Your task to perform on an android device: Add "lg ultragear" to the cart on walmart.com, then select checkout. Image 0: 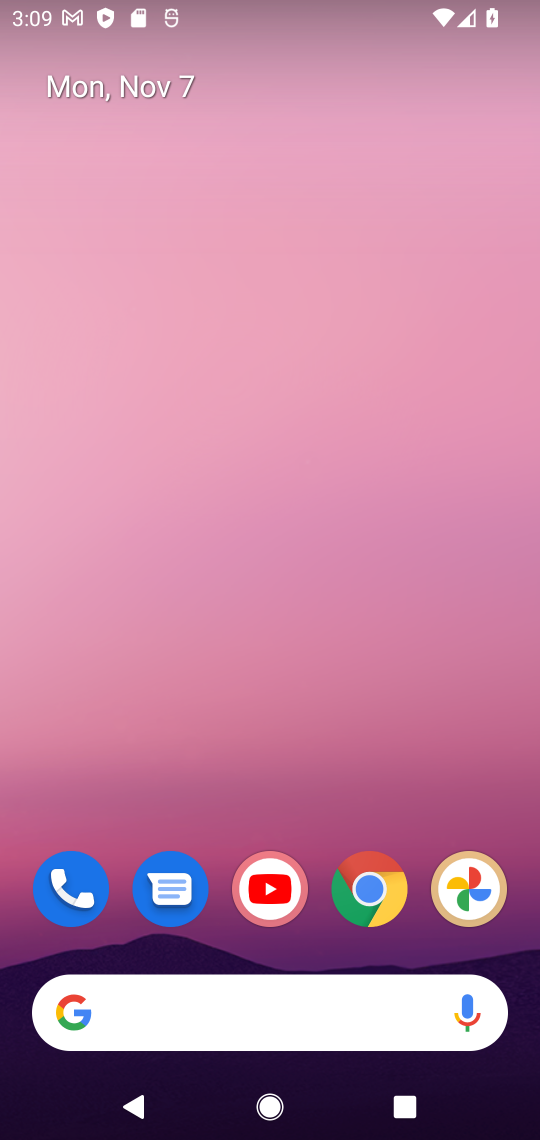
Step 0: click (379, 904)
Your task to perform on an android device: Add "lg ultragear" to the cart on walmart.com, then select checkout. Image 1: 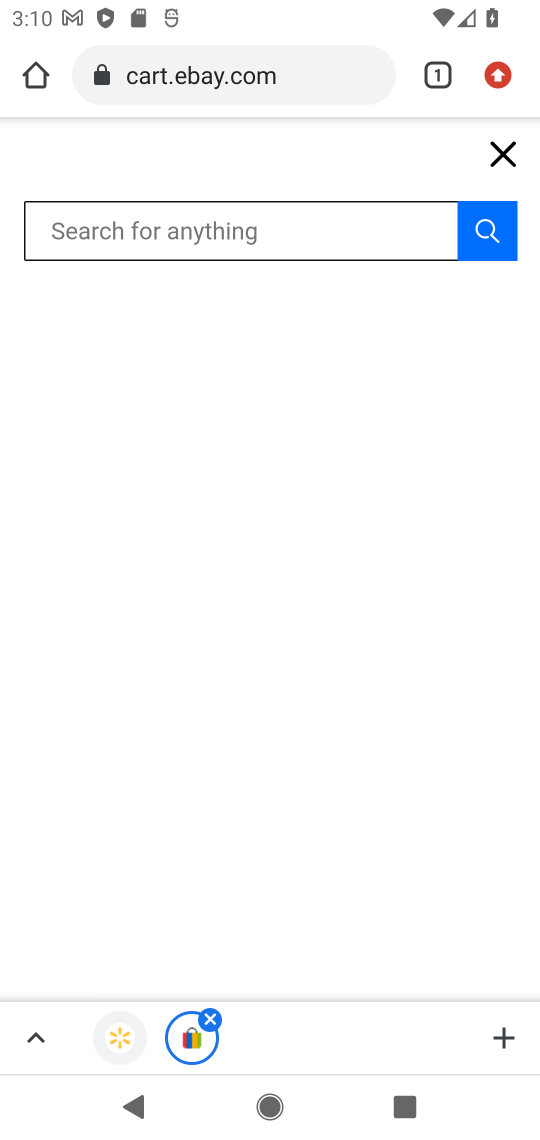
Step 1: click (219, 237)
Your task to perform on an android device: Add "lg ultragear" to the cart on walmart.com, then select checkout. Image 2: 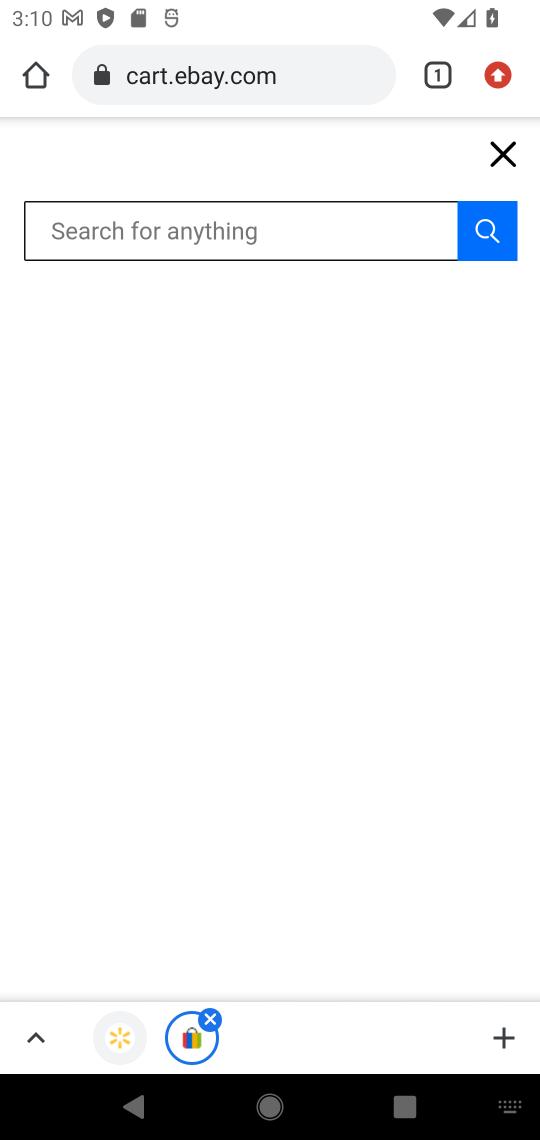
Step 2: click (282, 78)
Your task to perform on an android device: Add "lg ultragear" to the cart on walmart.com, then select checkout. Image 3: 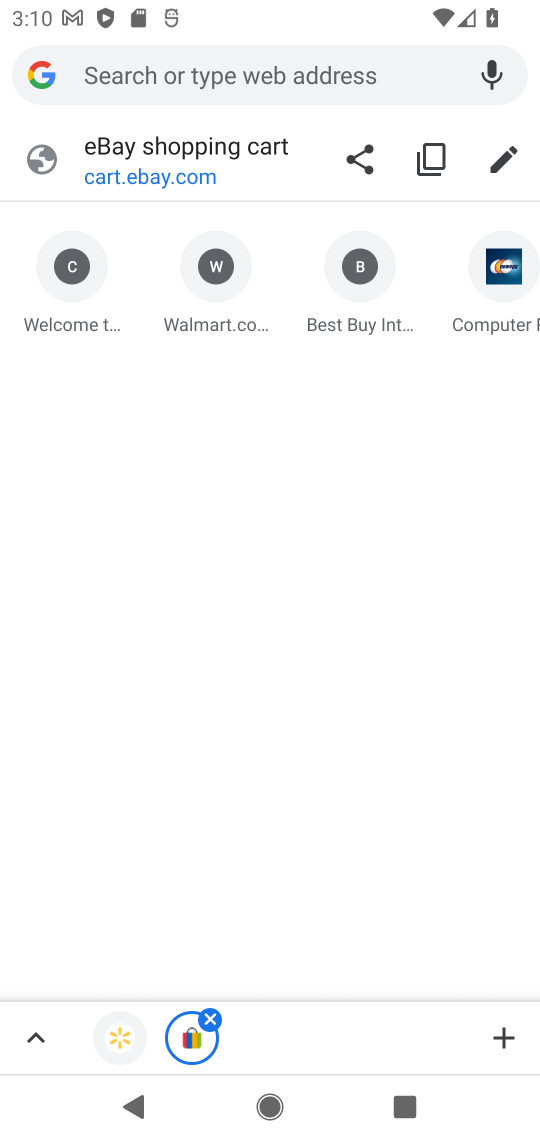
Step 3: type "walmart"
Your task to perform on an android device: Add "lg ultragear" to the cart on walmart.com, then select checkout. Image 4: 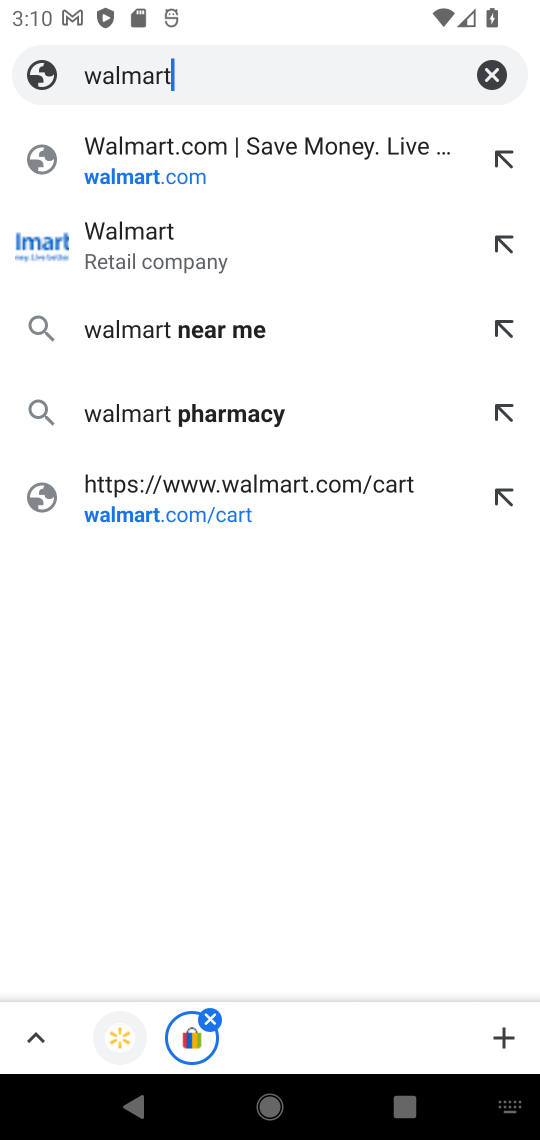
Step 4: click (233, 169)
Your task to perform on an android device: Add "lg ultragear" to the cart on walmart.com, then select checkout. Image 5: 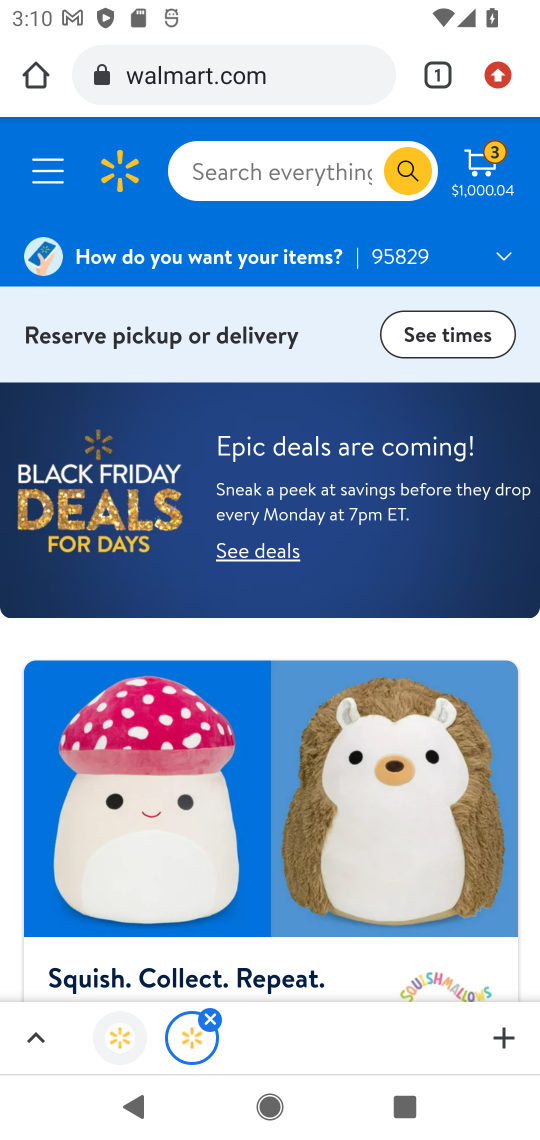
Step 5: click (273, 165)
Your task to perform on an android device: Add "lg ultragear" to the cart on walmart.com, then select checkout. Image 6: 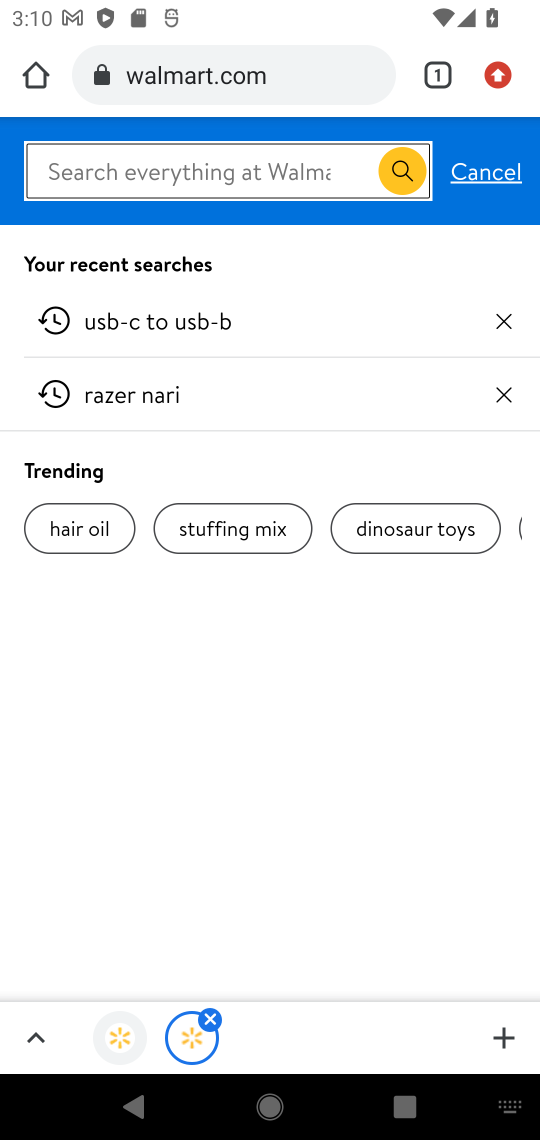
Step 6: type "lg ultraclear"
Your task to perform on an android device: Add "lg ultragear" to the cart on walmart.com, then select checkout. Image 7: 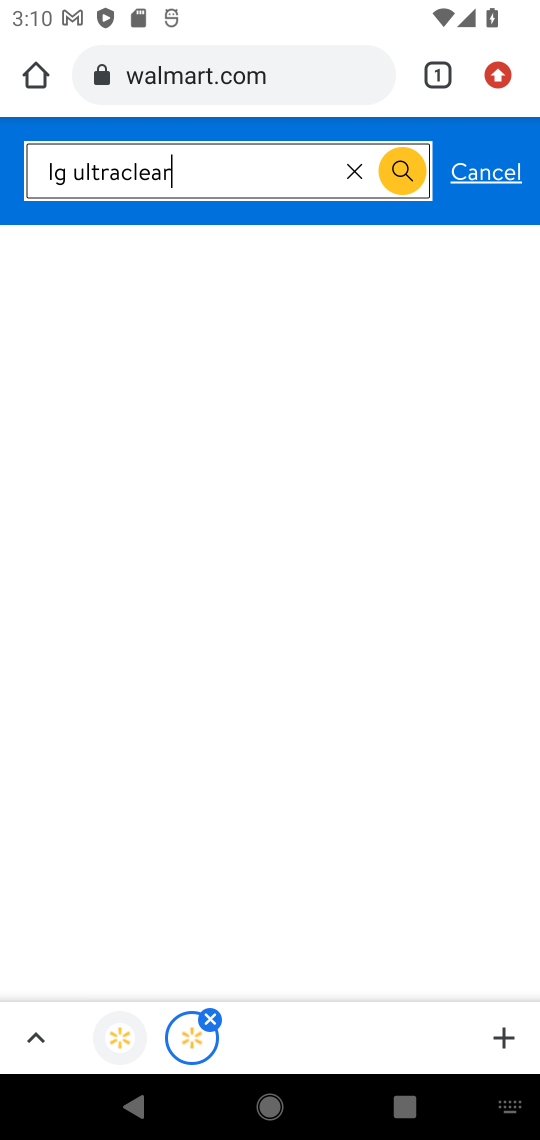
Step 7: press enter
Your task to perform on an android device: Add "lg ultragear" to the cart on walmart.com, then select checkout. Image 8: 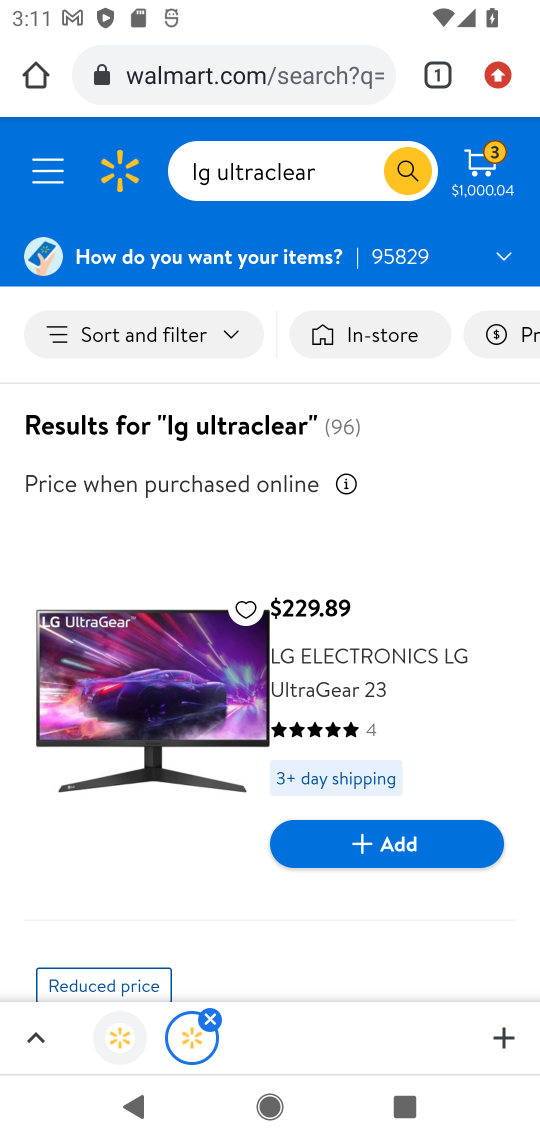
Step 8: click (197, 688)
Your task to perform on an android device: Add "lg ultragear" to the cart on walmart.com, then select checkout. Image 9: 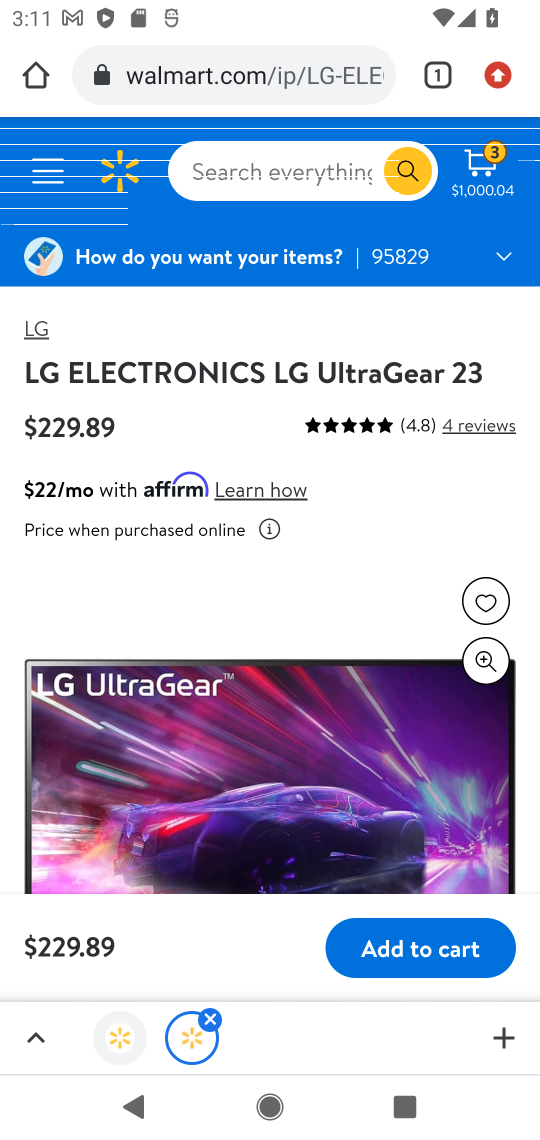
Step 9: click (317, 166)
Your task to perform on an android device: Add "lg ultragear" to the cart on walmart.com, then select checkout. Image 10: 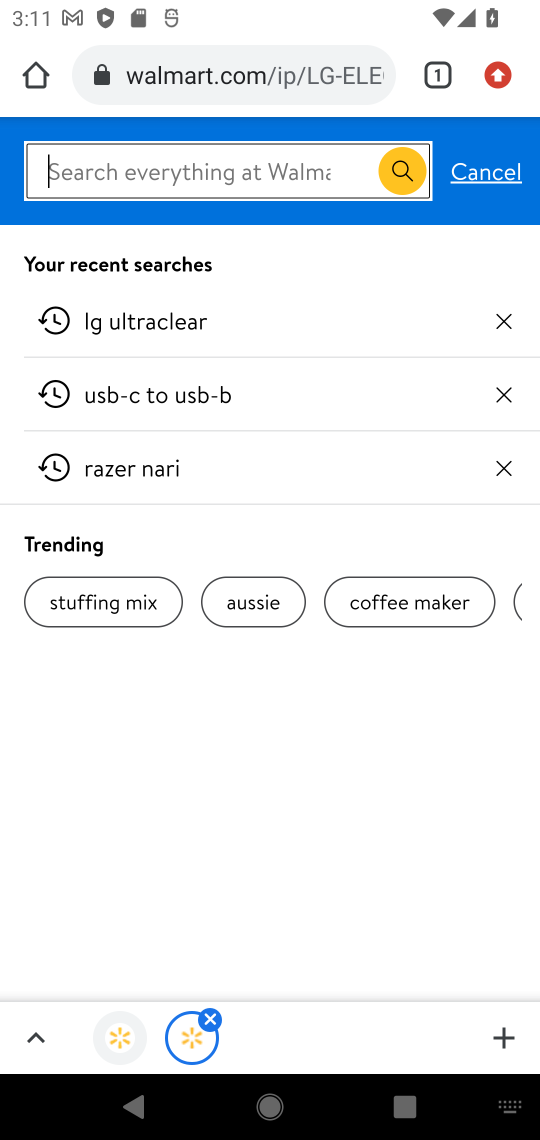
Step 10: type "lg ultragear"
Your task to perform on an android device: Add "lg ultragear" to the cart on walmart.com, then select checkout. Image 11: 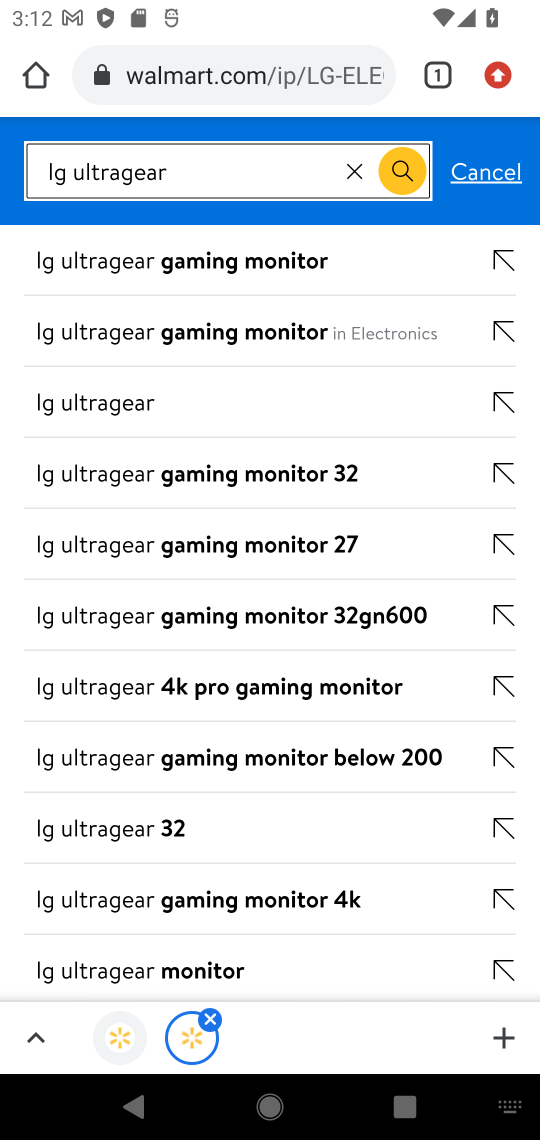
Step 11: press enter
Your task to perform on an android device: Add "lg ultragear" to the cart on walmart.com, then select checkout. Image 12: 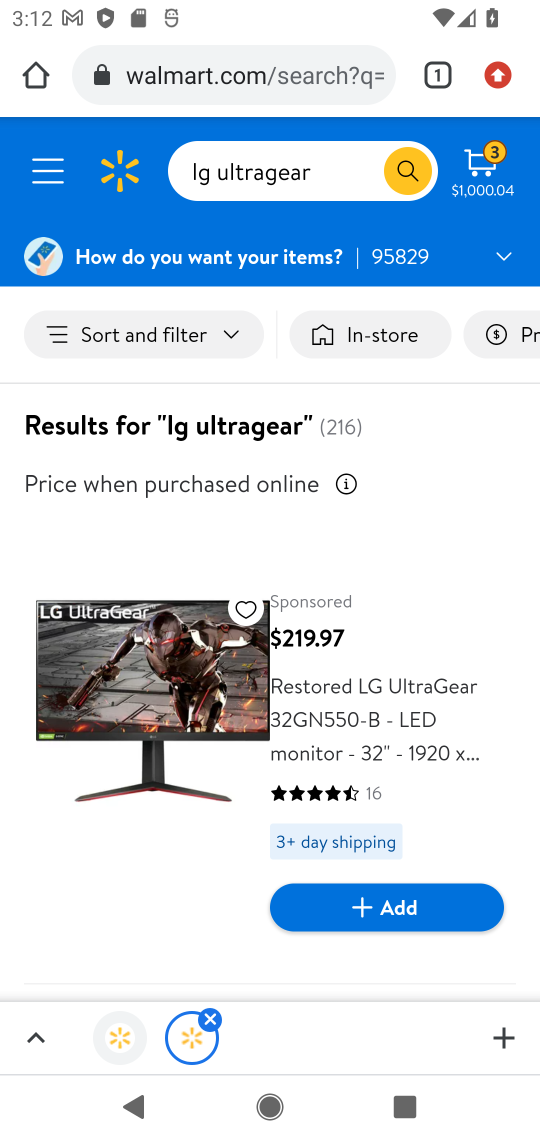
Step 12: click (323, 857)
Your task to perform on an android device: Add "lg ultragear" to the cart on walmart.com, then select checkout. Image 13: 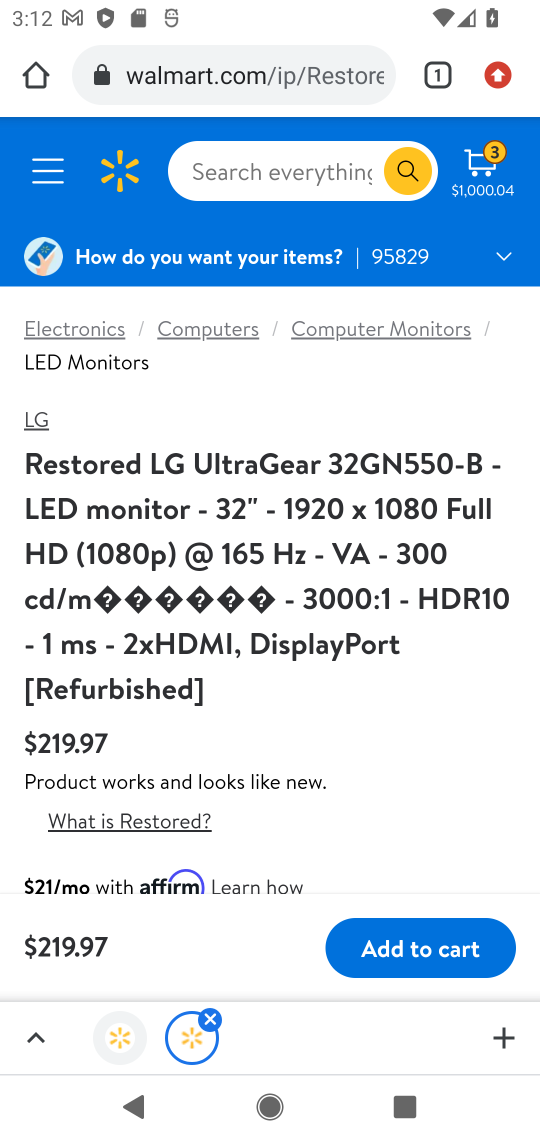
Step 13: click (473, 955)
Your task to perform on an android device: Add "lg ultragear" to the cart on walmart.com, then select checkout. Image 14: 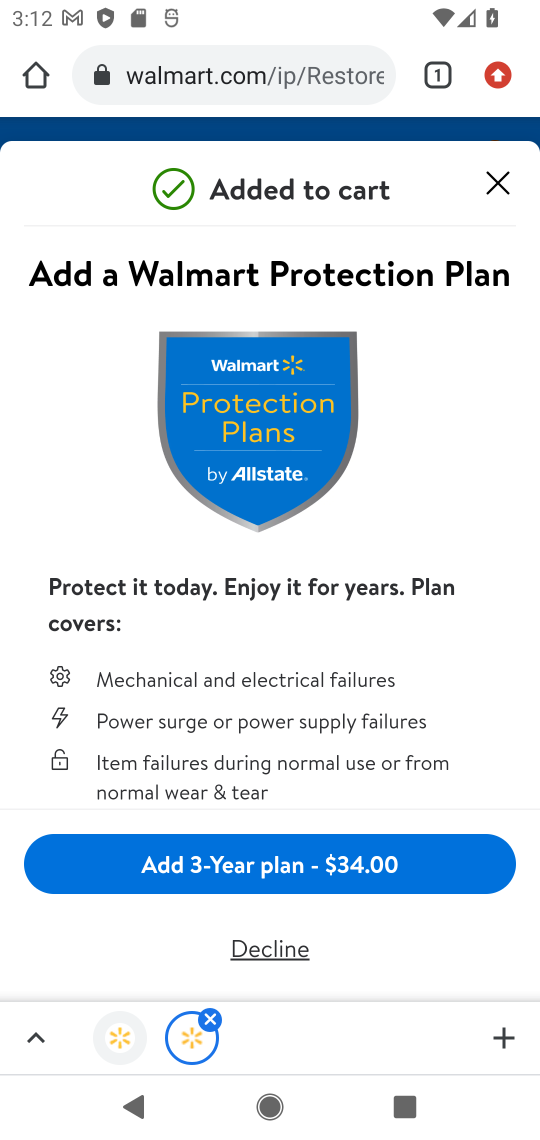
Step 14: click (494, 187)
Your task to perform on an android device: Add "lg ultragear" to the cart on walmart.com, then select checkout. Image 15: 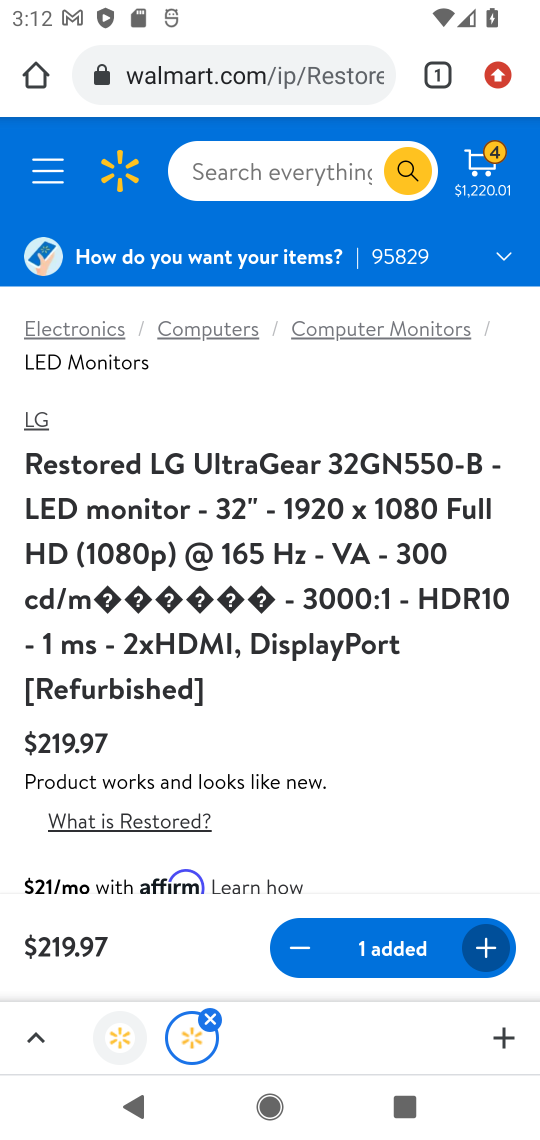
Step 15: click (484, 164)
Your task to perform on an android device: Add "lg ultragear" to the cart on walmart.com, then select checkout. Image 16: 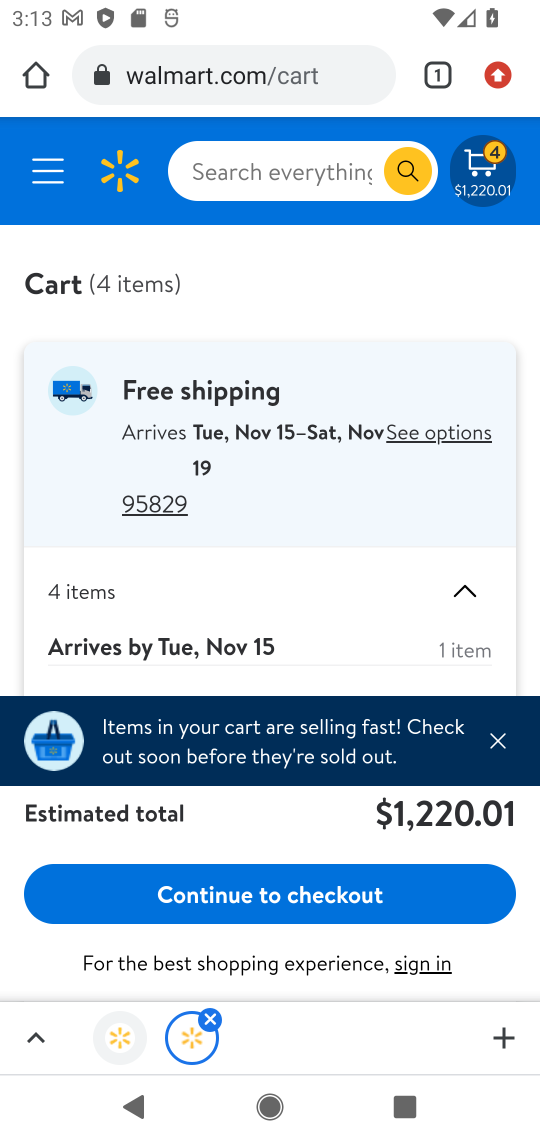
Step 16: click (285, 894)
Your task to perform on an android device: Add "lg ultragear" to the cart on walmart.com, then select checkout. Image 17: 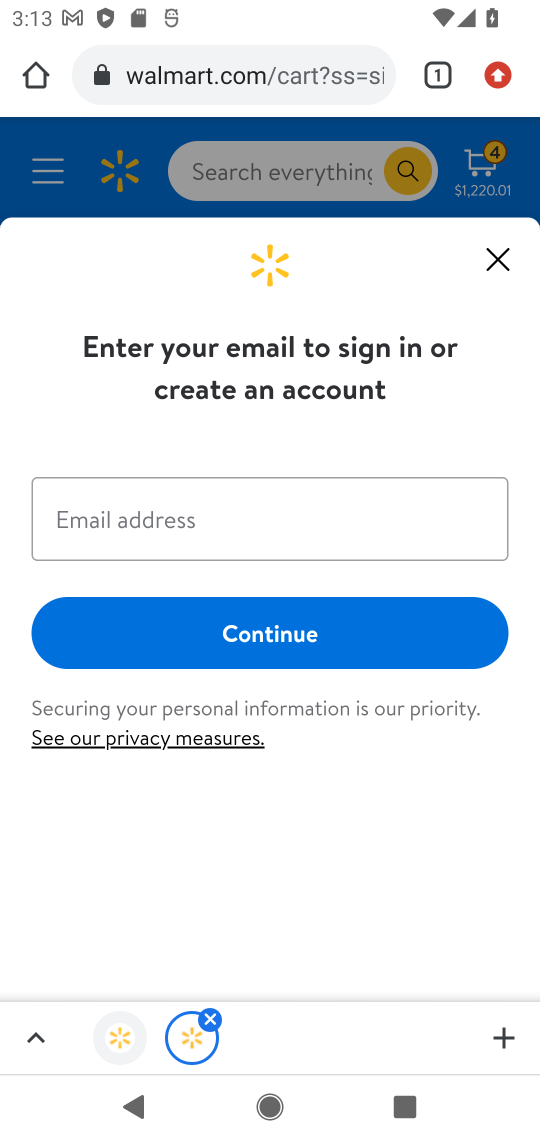
Step 17: click (496, 251)
Your task to perform on an android device: Add "lg ultragear" to the cart on walmart.com, then select checkout. Image 18: 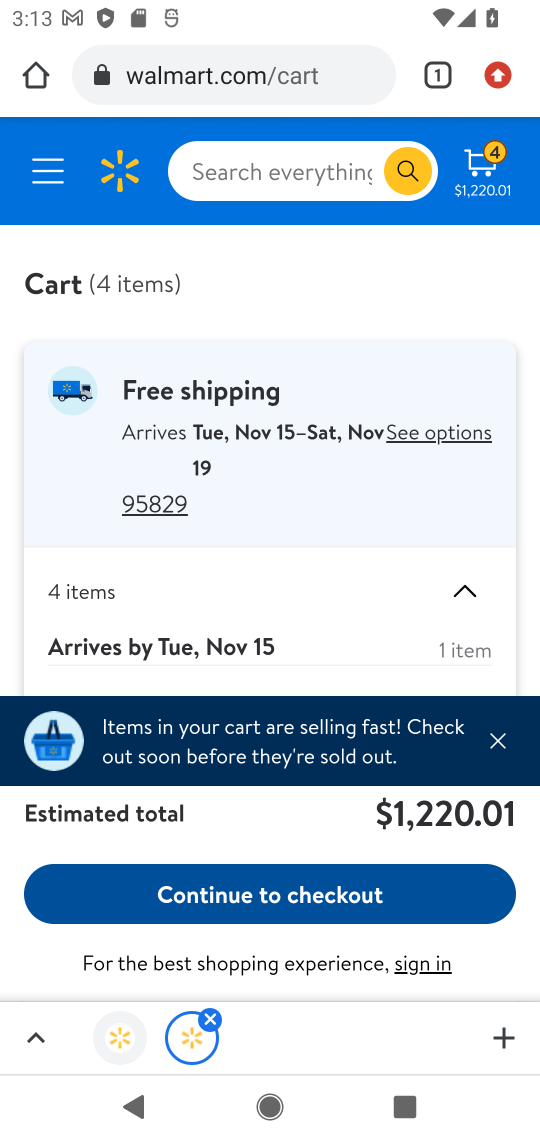
Step 18: click (279, 187)
Your task to perform on an android device: Add "lg ultragear" to the cart on walmart.com, then select checkout. Image 19: 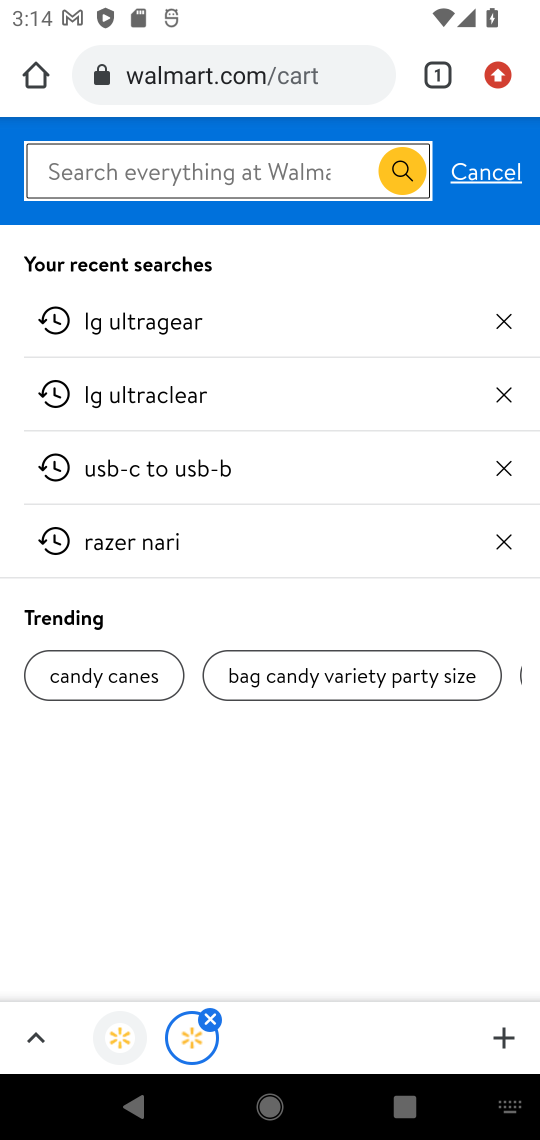
Step 19: type "lg ultragear"
Your task to perform on an android device: Add "lg ultragear" to the cart on walmart.com, then select checkout. Image 20: 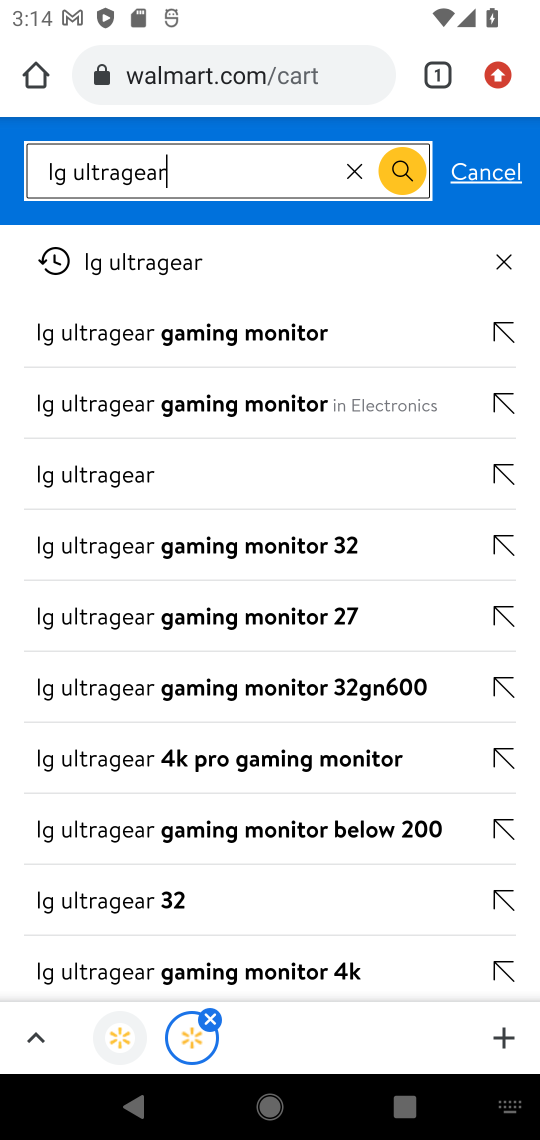
Step 20: press enter
Your task to perform on an android device: Add "lg ultragear" to the cart on walmart.com, then select checkout. Image 21: 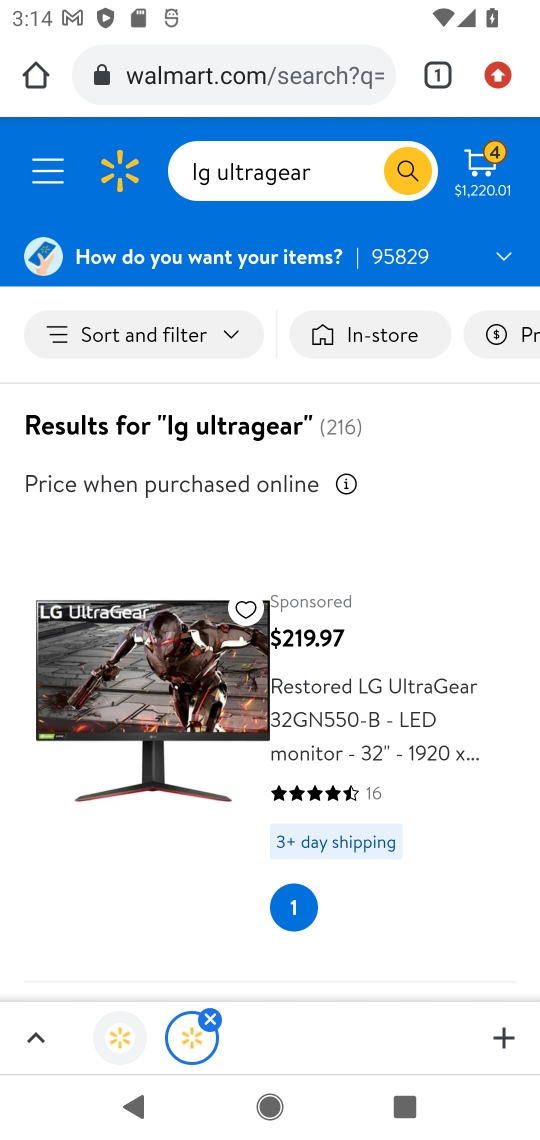
Step 21: click (458, 828)
Your task to perform on an android device: Add "lg ultragear" to the cart on walmart.com, then select checkout. Image 22: 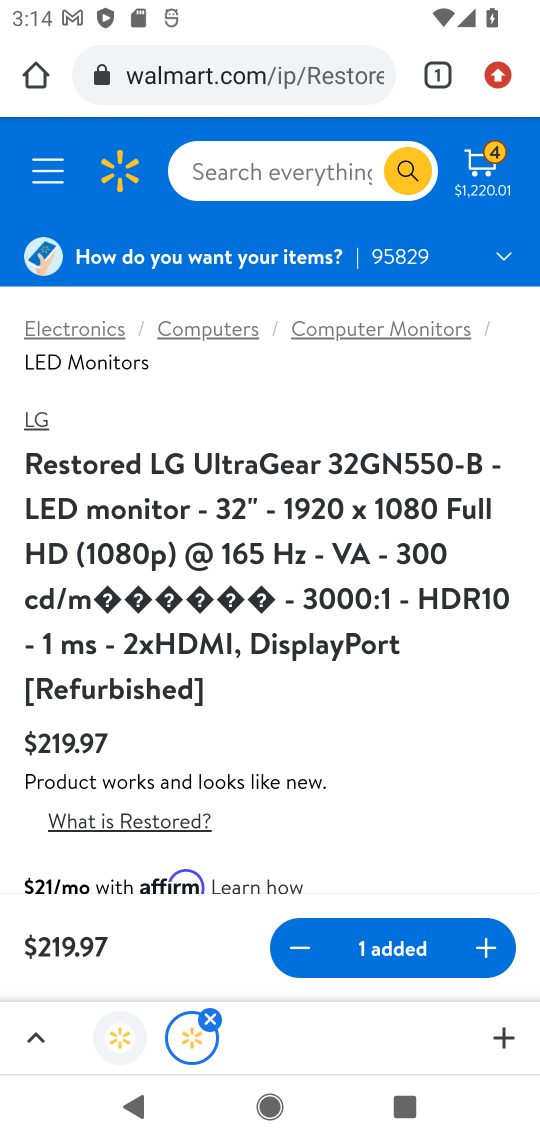
Step 22: click (494, 954)
Your task to perform on an android device: Add "lg ultragear" to the cart on walmart.com, then select checkout. Image 23: 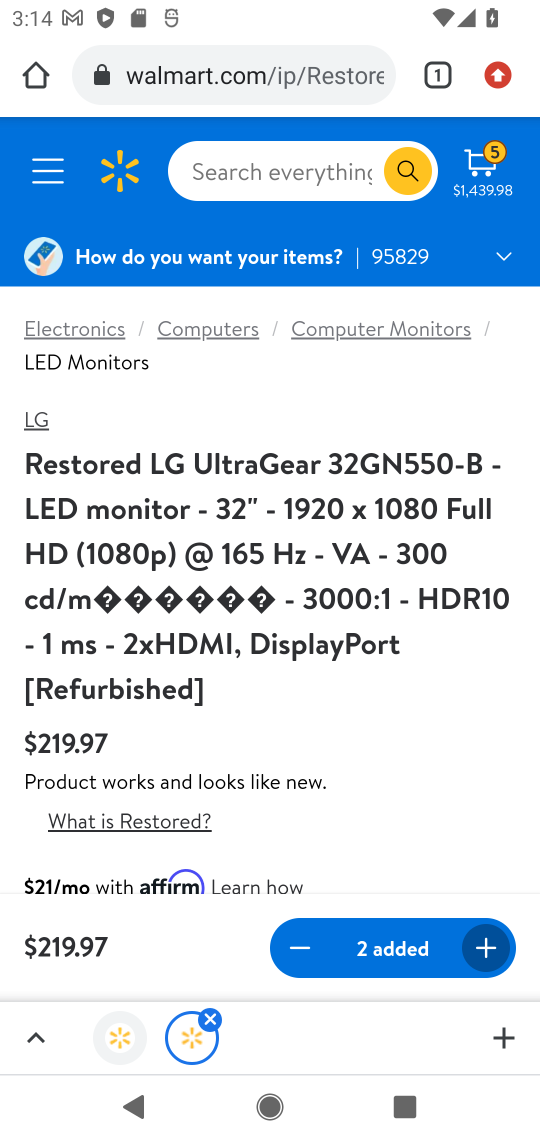
Step 23: click (480, 175)
Your task to perform on an android device: Add "lg ultragear" to the cart on walmart.com, then select checkout. Image 24: 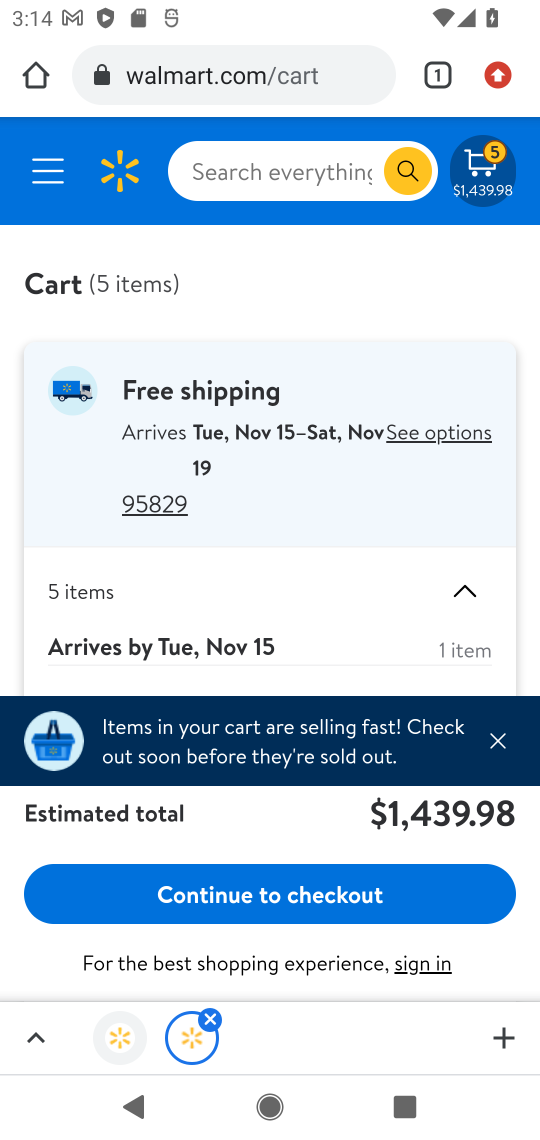
Step 24: click (390, 889)
Your task to perform on an android device: Add "lg ultragear" to the cart on walmart.com, then select checkout. Image 25: 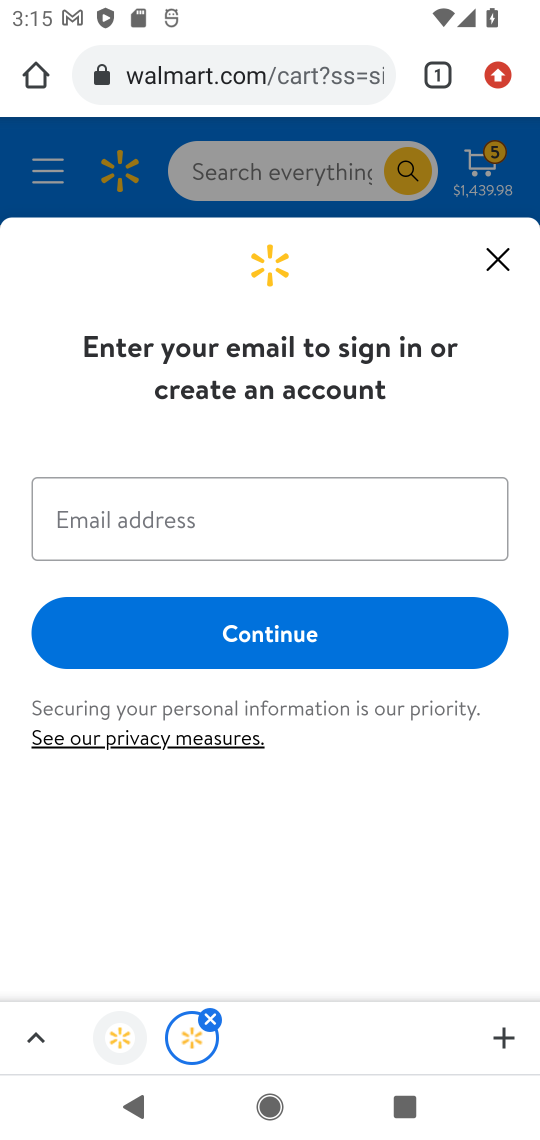
Step 25: task complete